Your task to perform on an android device: toggle notification dots Image 0: 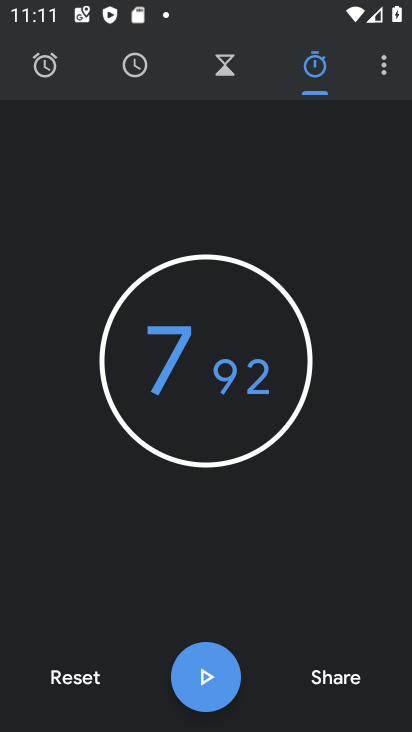
Step 0: press back button
Your task to perform on an android device: toggle notification dots Image 1: 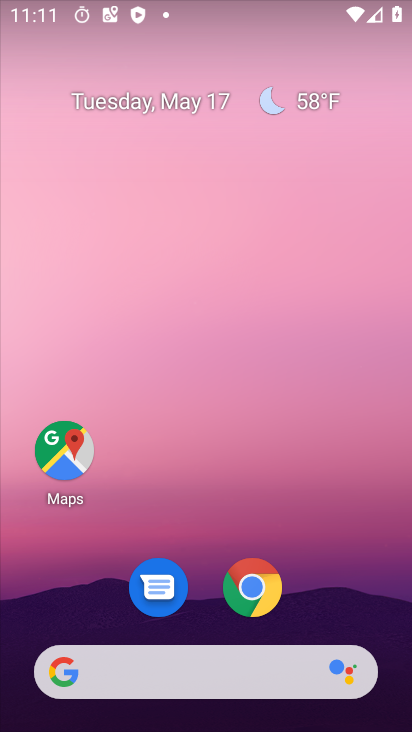
Step 1: drag from (320, 584) to (241, 134)
Your task to perform on an android device: toggle notification dots Image 2: 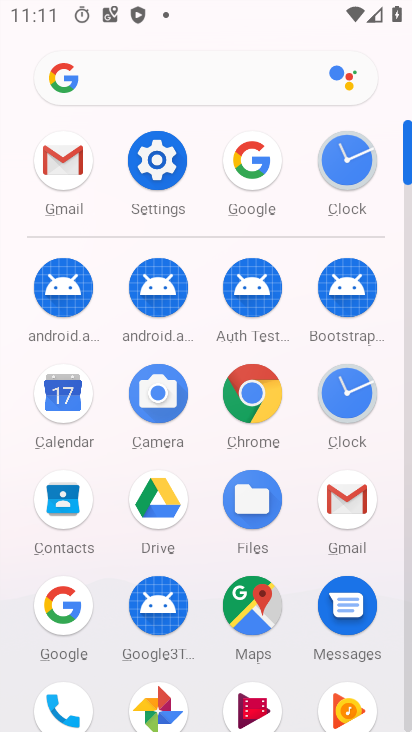
Step 2: click (157, 162)
Your task to perform on an android device: toggle notification dots Image 3: 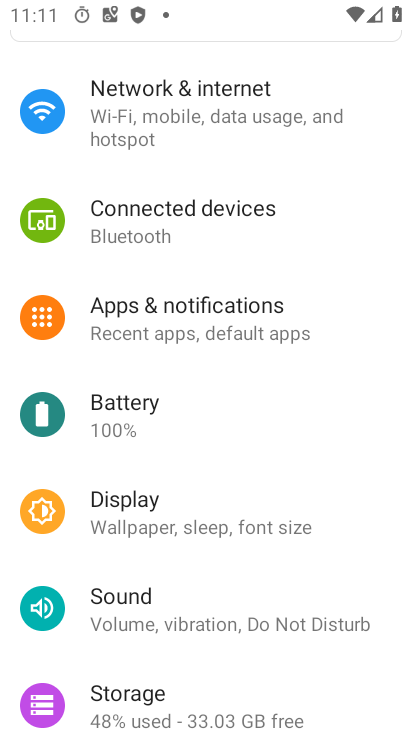
Step 3: drag from (173, 479) to (204, 393)
Your task to perform on an android device: toggle notification dots Image 4: 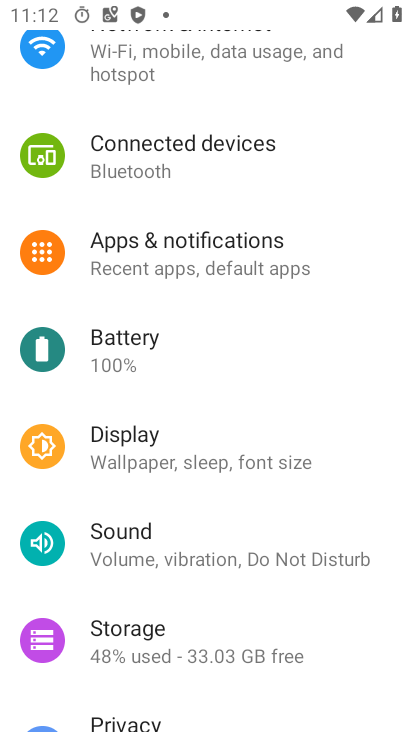
Step 4: drag from (159, 506) to (203, 422)
Your task to perform on an android device: toggle notification dots Image 5: 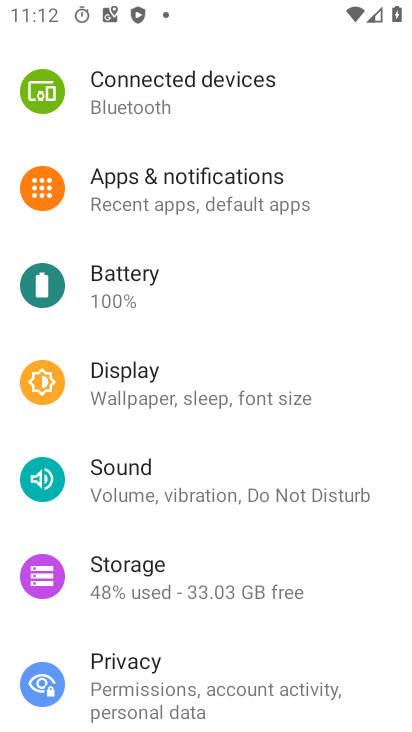
Step 5: drag from (150, 536) to (190, 440)
Your task to perform on an android device: toggle notification dots Image 6: 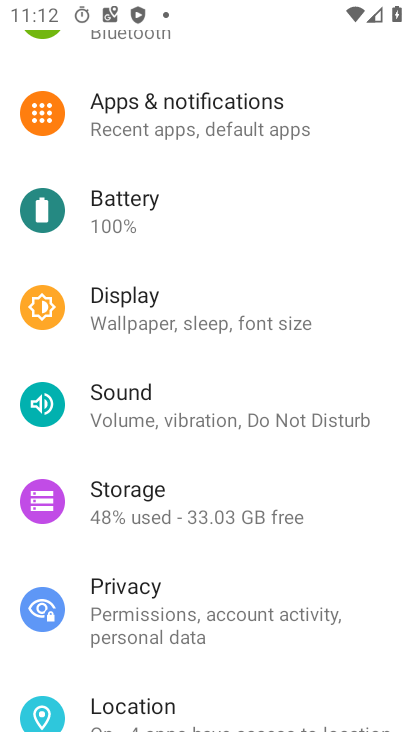
Step 6: click (191, 134)
Your task to perform on an android device: toggle notification dots Image 7: 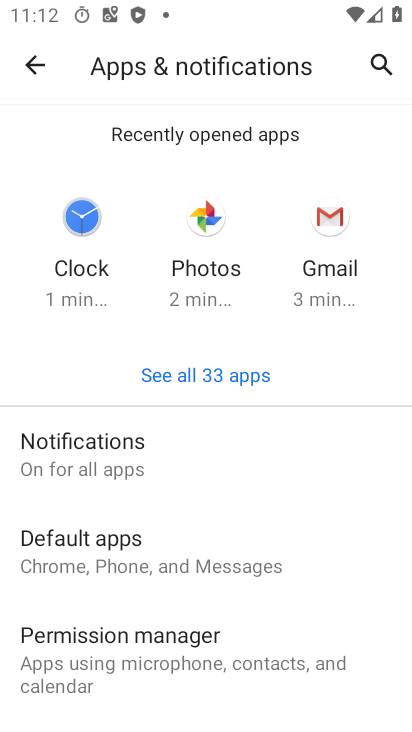
Step 7: click (115, 451)
Your task to perform on an android device: toggle notification dots Image 8: 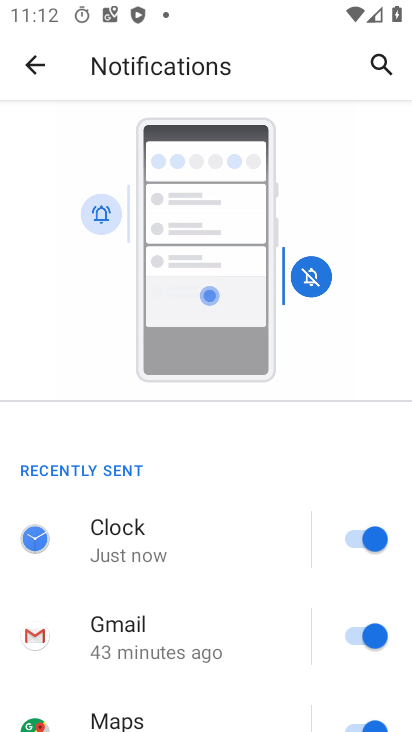
Step 8: drag from (172, 503) to (207, 395)
Your task to perform on an android device: toggle notification dots Image 9: 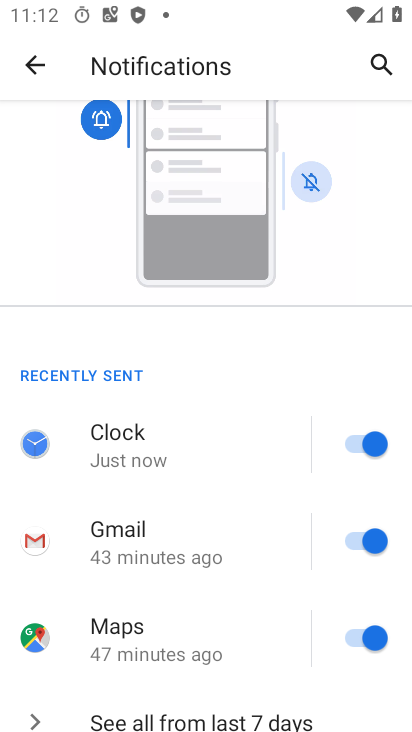
Step 9: drag from (158, 500) to (190, 414)
Your task to perform on an android device: toggle notification dots Image 10: 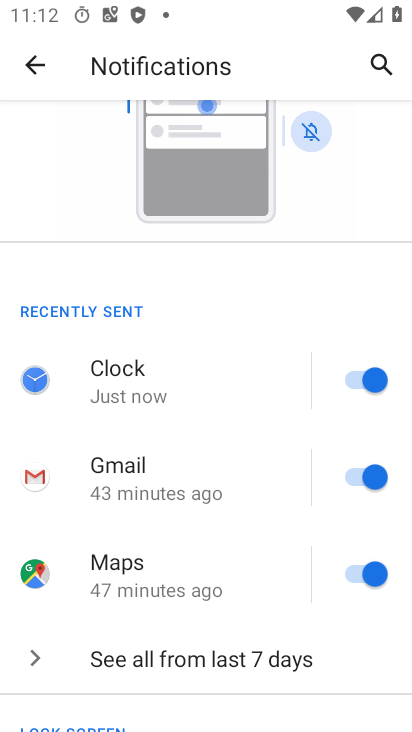
Step 10: drag from (144, 528) to (193, 440)
Your task to perform on an android device: toggle notification dots Image 11: 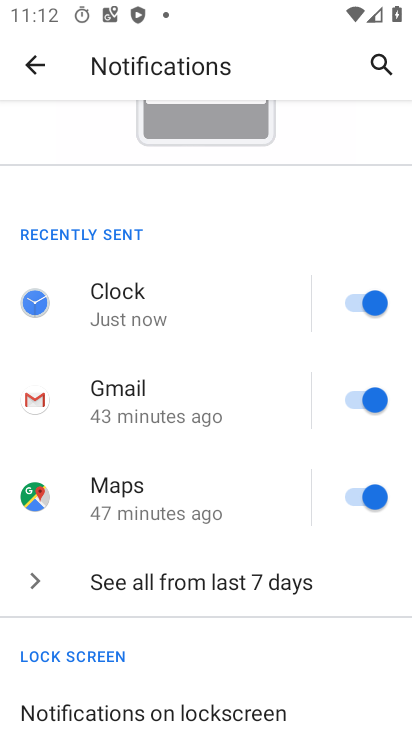
Step 11: drag from (128, 540) to (205, 413)
Your task to perform on an android device: toggle notification dots Image 12: 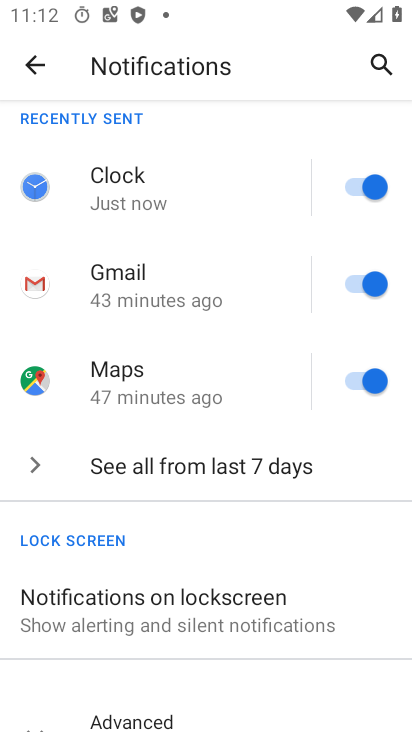
Step 12: drag from (147, 634) to (239, 502)
Your task to perform on an android device: toggle notification dots Image 13: 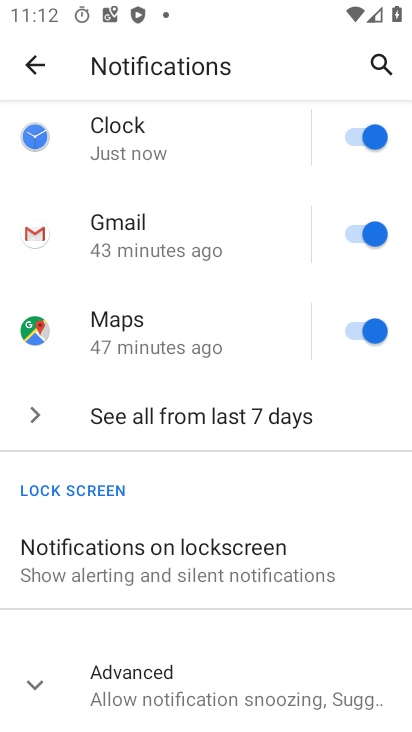
Step 13: click (152, 694)
Your task to perform on an android device: toggle notification dots Image 14: 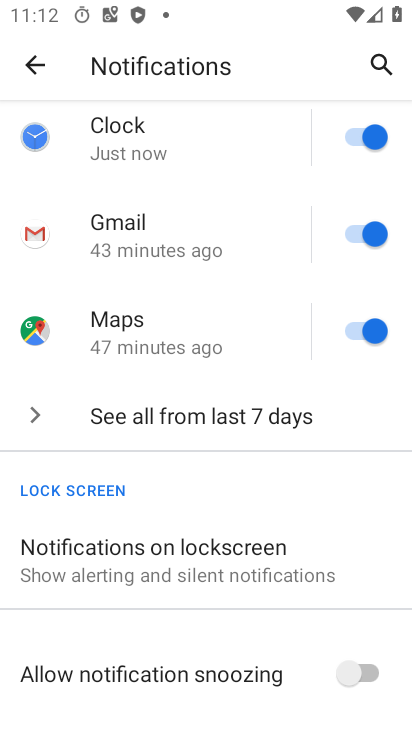
Step 14: drag from (171, 634) to (257, 516)
Your task to perform on an android device: toggle notification dots Image 15: 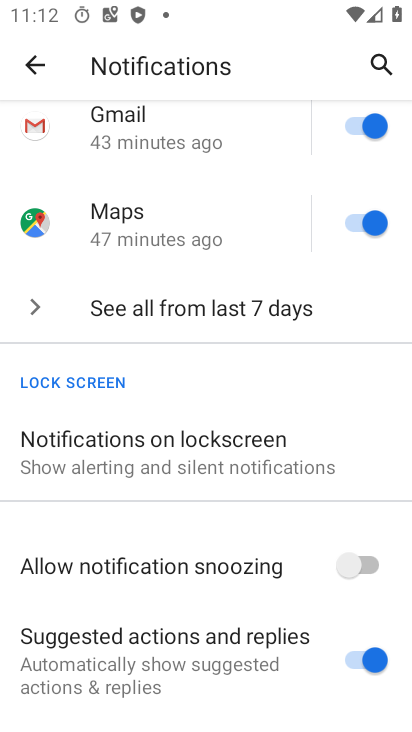
Step 15: drag from (210, 638) to (263, 511)
Your task to perform on an android device: toggle notification dots Image 16: 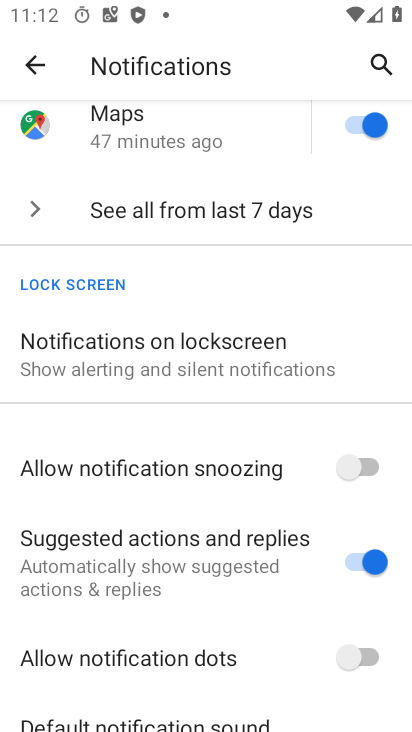
Step 16: click (363, 656)
Your task to perform on an android device: toggle notification dots Image 17: 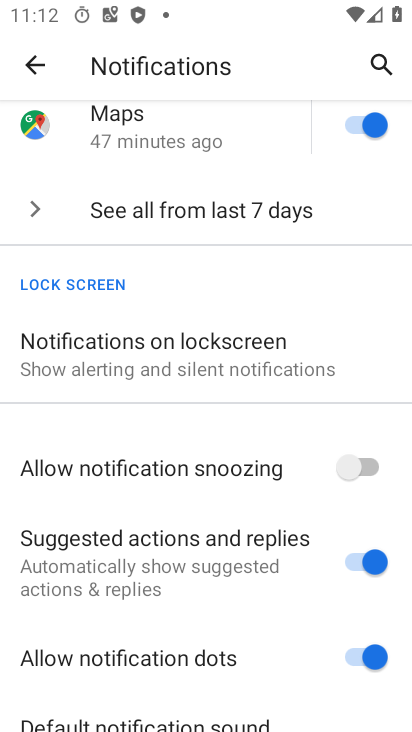
Step 17: task complete